Your task to perform on an android device: Open Google Chrome and open the bookmarks view Image 0: 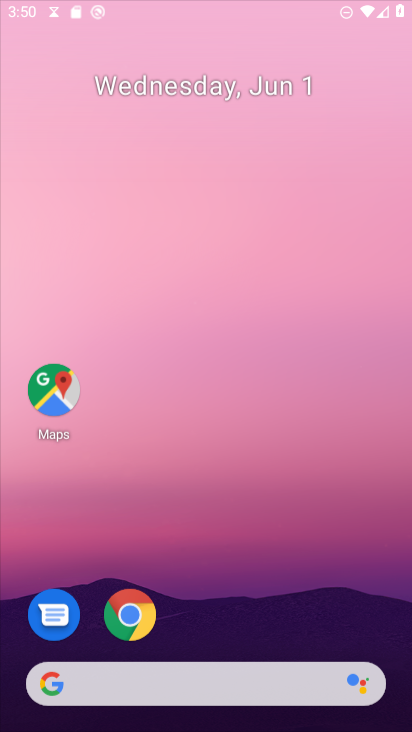
Step 0: press home button
Your task to perform on an android device: Open Google Chrome and open the bookmarks view Image 1: 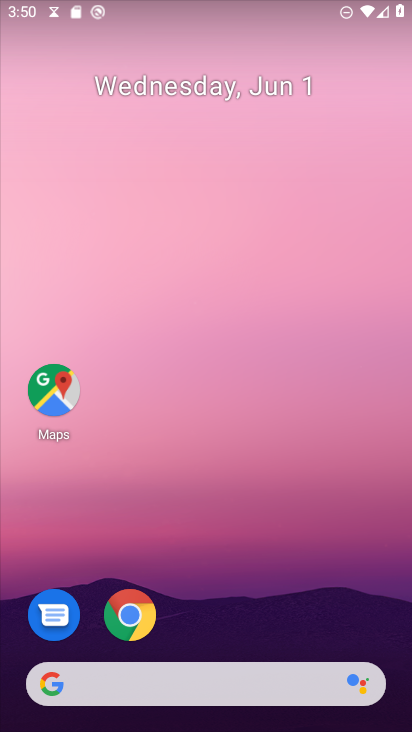
Step 1: click (127, 610)
Your task to perform on an android device: Open Google Chrome and open the bookmarks view Image 2: 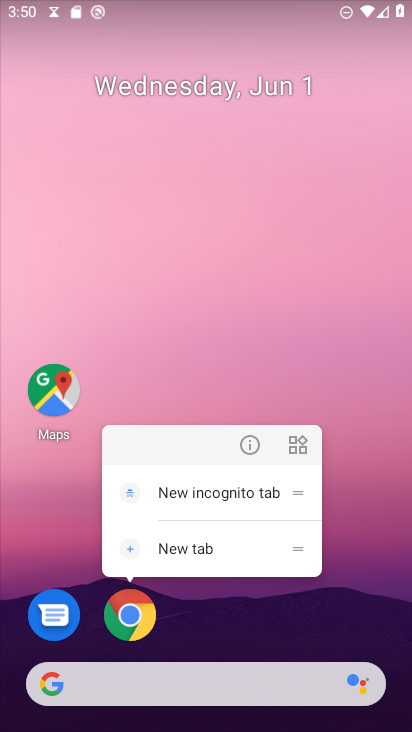
Step 2: click (130, 608)
Your task to perform on an android device: Open Google Chrome and open the bookmarks view Image 3: 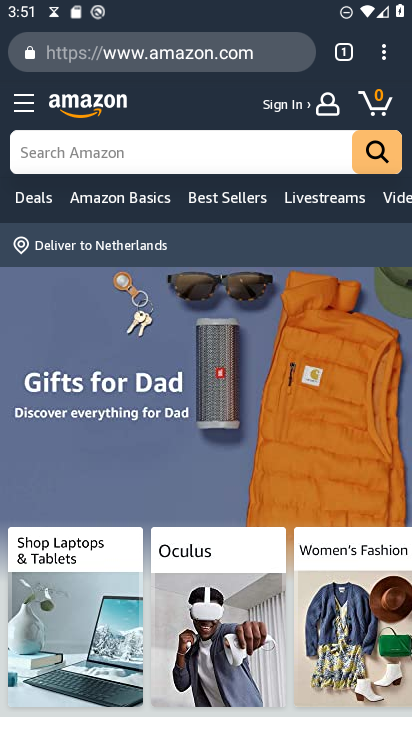
Step 3: click (382, 49)
Your task to perform on an android device: Open Google Chrome and open the bookmarks view Image 4: 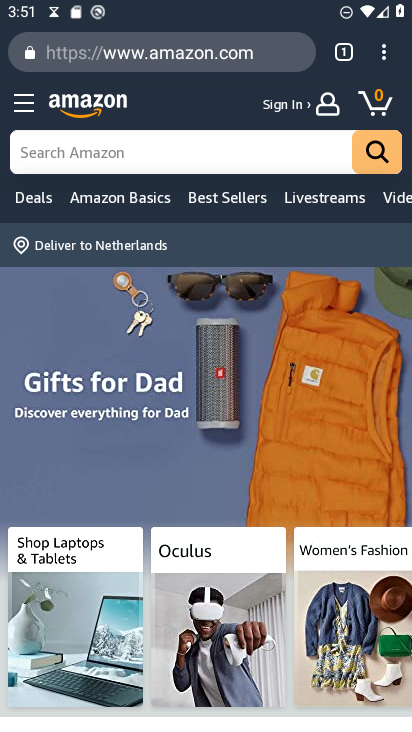
Step 4: click (383, 48)
Your task to perform on an android device: Open Google Chrome and open the bookmarks view Image 5: 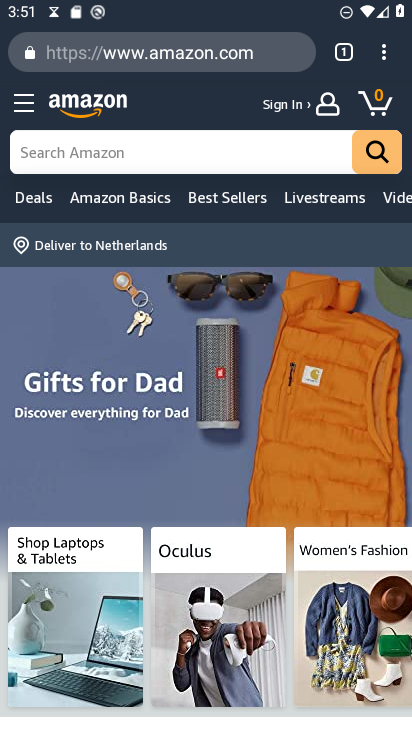
Step 5: click (385, 54)
Your task to perform on an android device: Open Google Chrome and open the bookmarks view Image 6: 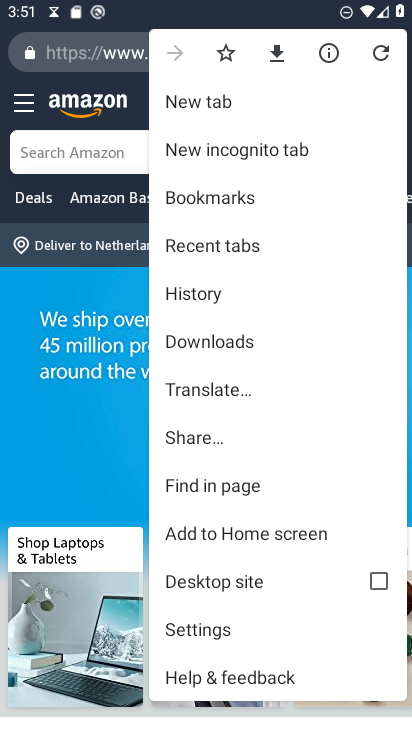
Step 6: click (255, 198)
Your task to perform on an android device: Open Google Chrome and open the bookmarks view Image 7: 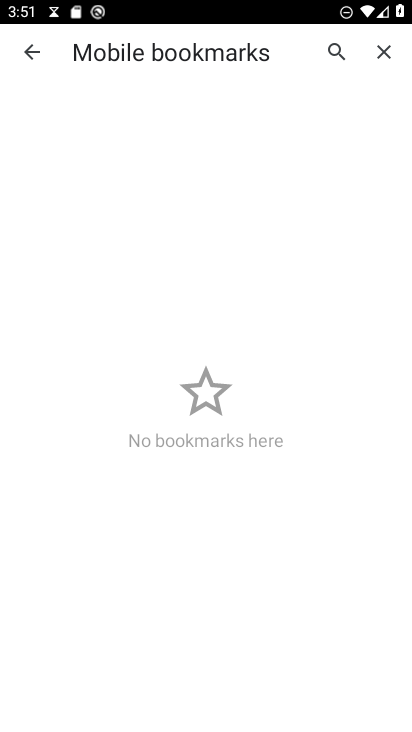
Step 7: task complete